Your task to perform on an android device: stop showing notifications on the lock screen Image 0: 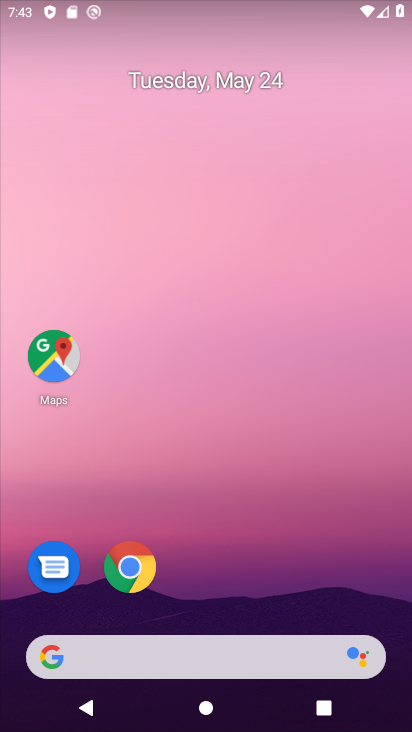
Step 0: click (88, 0)
Your task to perform on an android device: stop showing notifications on the lock screen Image 1: 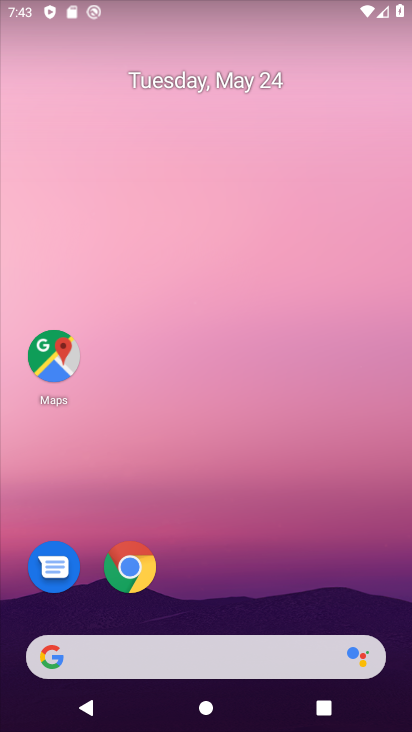
Step 1: click (106, 26)
Your task to perform on an android device: stop showing notifications on the lock screen Image 2: 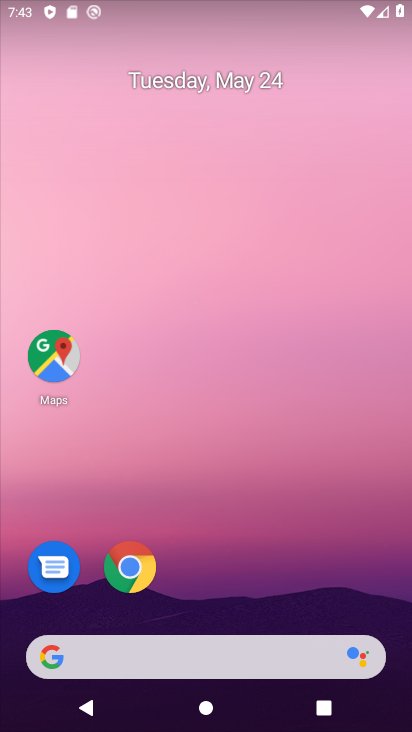
Step 2: click (175, 42)
Your task to perform on an android device: stop showing notifications on the lock screen Image 3: 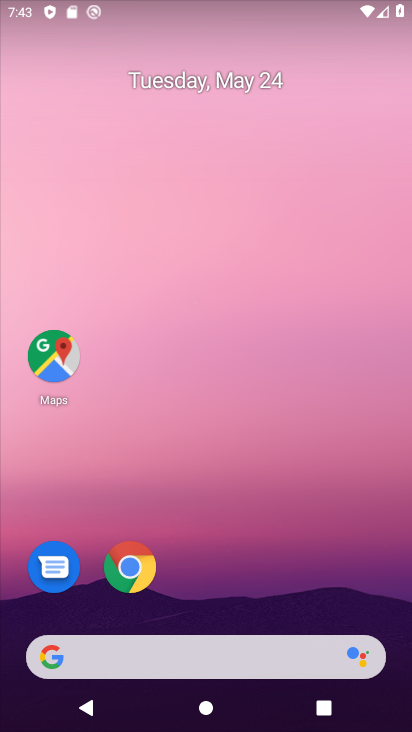
Step 3: click (198, 6)
Your task to perform on an android device: stop showing notifications on the lock screen Image 4: 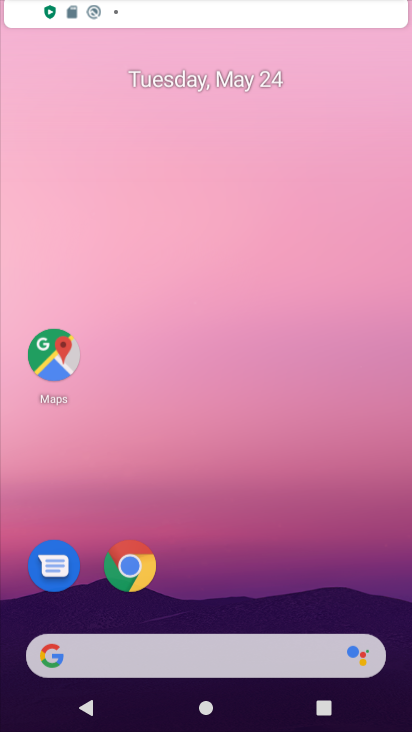
Step 4: click (190, 20)
Your task to perform on an android device: stop showing notifications on the lock screen Image 5: 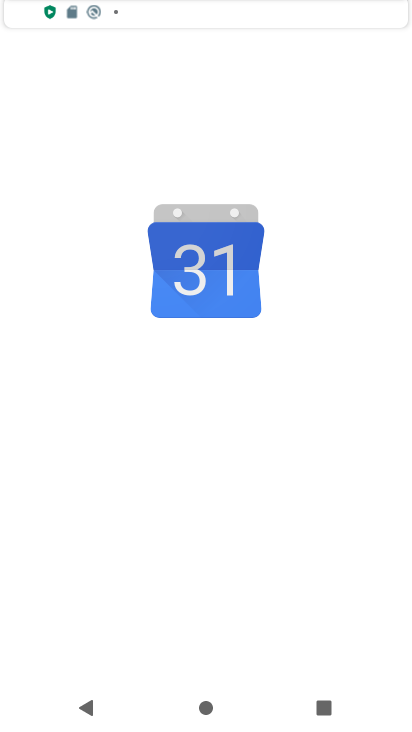
Step 5: click (267, 75)
Your task to perform on an android device: stop showing notifications on the lock screen Image 6: 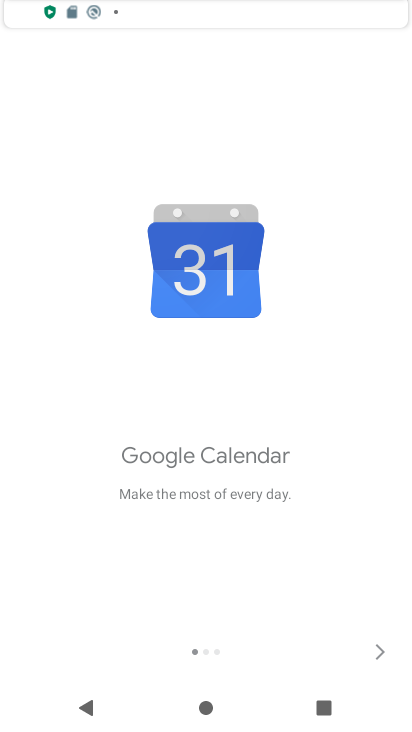
Step 6: click (288, 71)
Your task to perform on an android device: stop showing notifications on the lock screen Image 7: 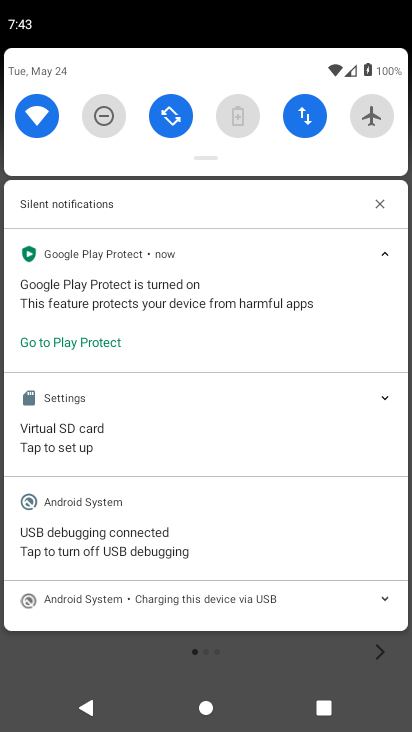
Step 7: press back button
Your task to perform on an android device: stop showing notifications on the lock screen Image 8: 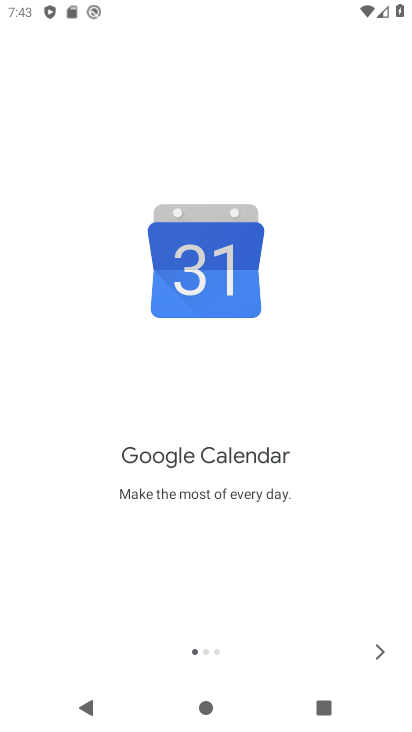
Step 8: click (385, 650)
Your task to perform on an android device: stop showing notifications on the lock screen Image 9: 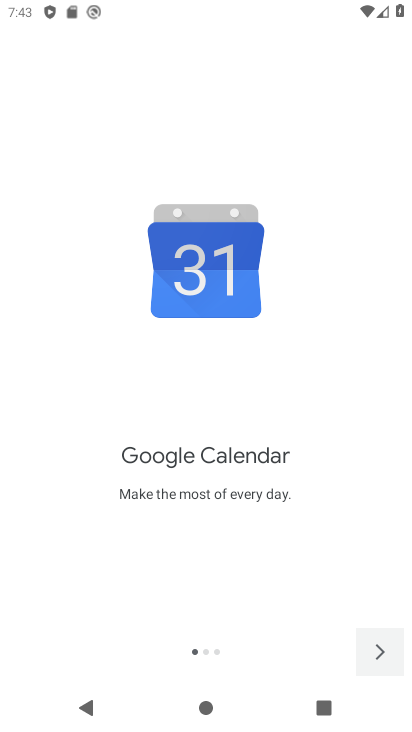
Step 9: click (386, 650)
Your task to perform on an android device: stop showing notifications on the lock screen Image 10: 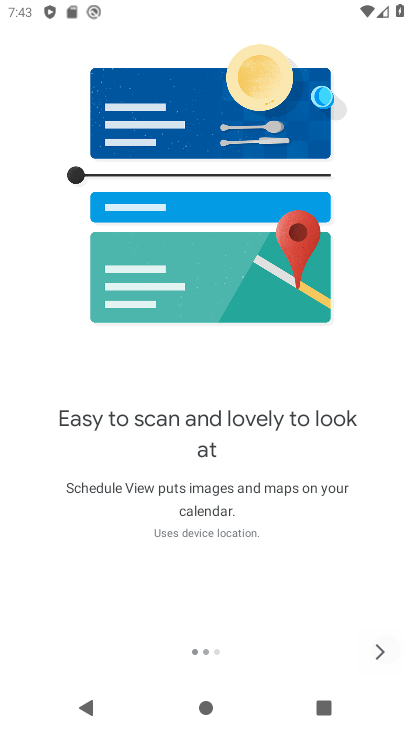
Step 10: click (386, 650)
Your task to perform on an android device: stop showing notifications on the lock screen Image 11: 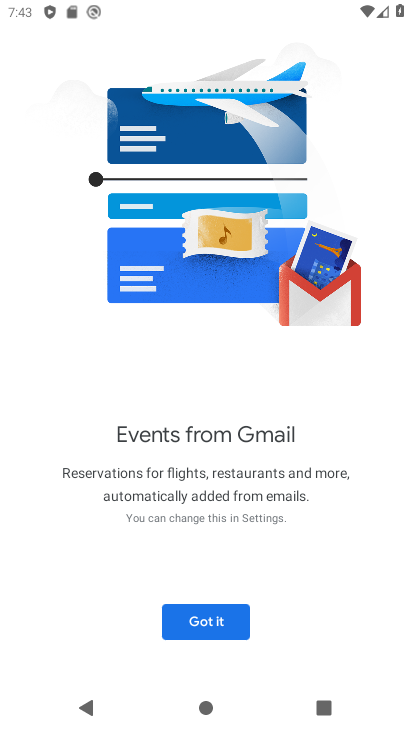
Step 11: press home button
Your task to perform on an android device: stop showing notifications on the lock screen Image 12: 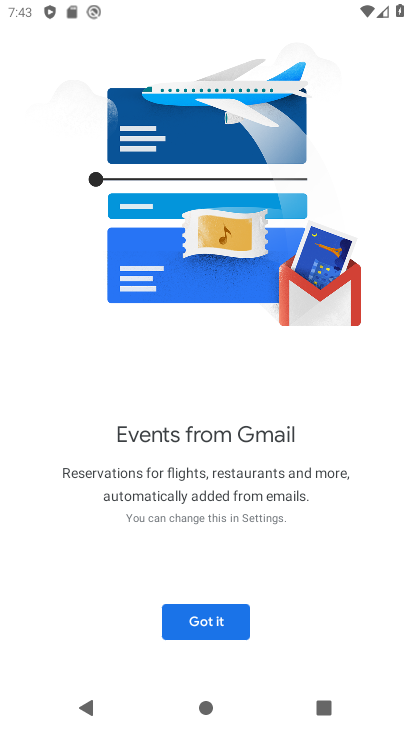
Step 12: press home button
Your task to perform on an android device: stop showing notifications on the lock screen Image 13: 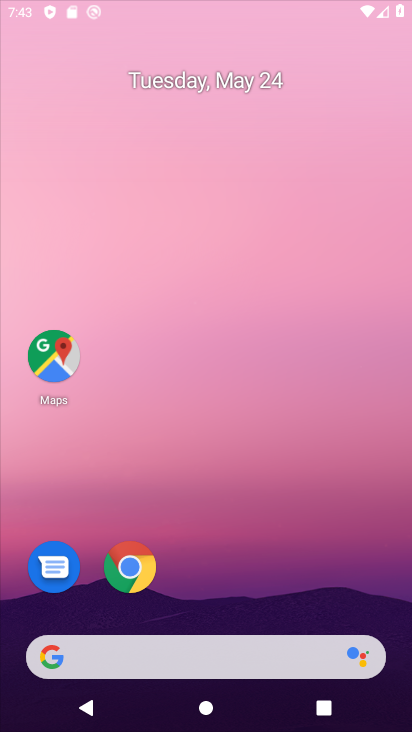
Step 13: press home button
Your task to perform on an android device: stop showing notifications on the lock screen Image 14: 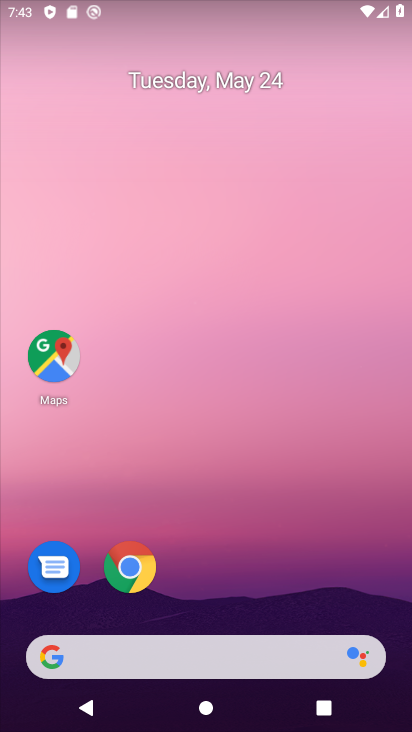
Step 14: press home button
Your task to perform on an android device: stop showing notifications on the lock screen Image 15: 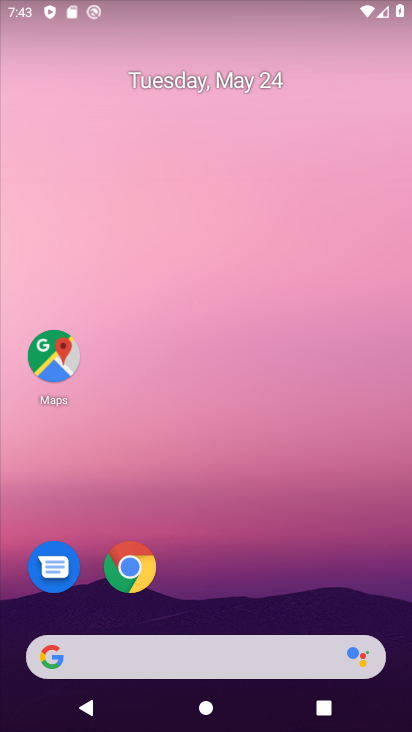
Step 15: press home button
Your task to perform on an android device: stop showing notifications on the lock screen Image 16: 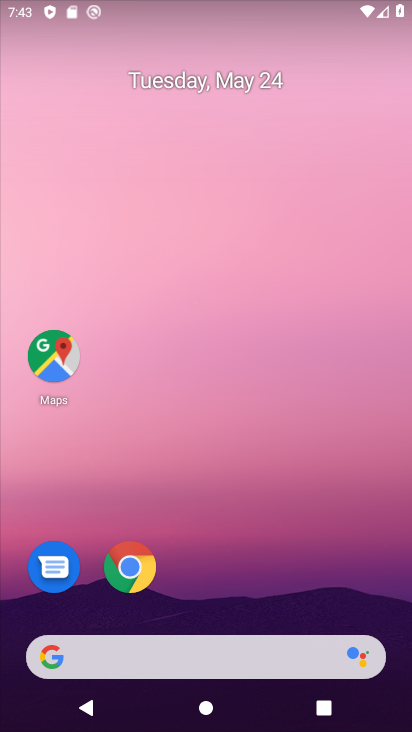
Step 16: drag from (220, 405) to (167, 57)
Your task to perform on an android device: stop showing notifications on the lock screen Image 17: 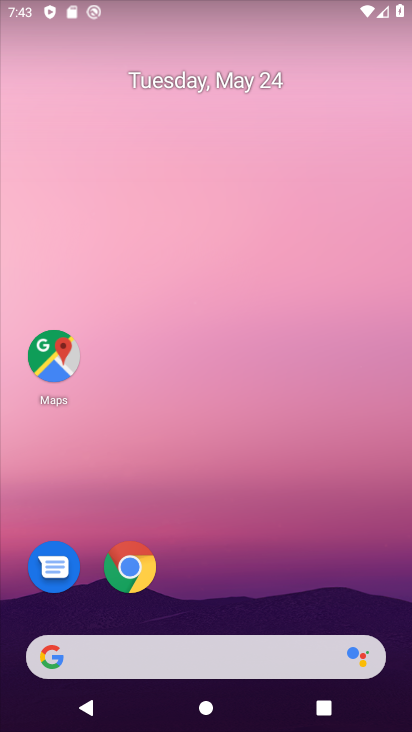
Step 17: drag from (244, 640) to (129, 96)
Your task to perform on an android device: stop showing notifications on the lock screen Image 18: 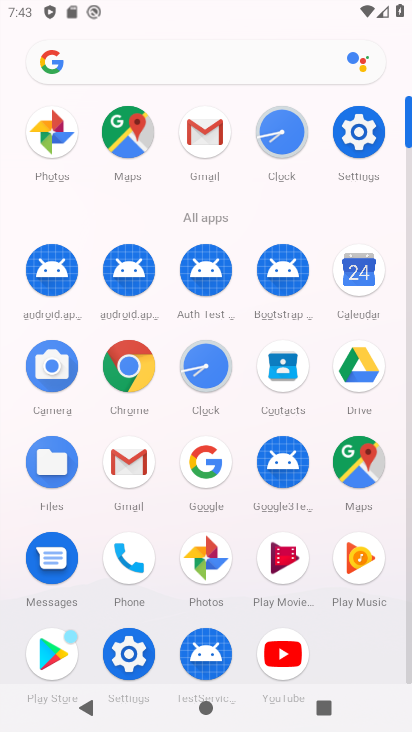
Step 18: drag from (232, 592) to (204, 168)
Your task to perform on an android device: stop showing notifications on the lock screen Image 19: 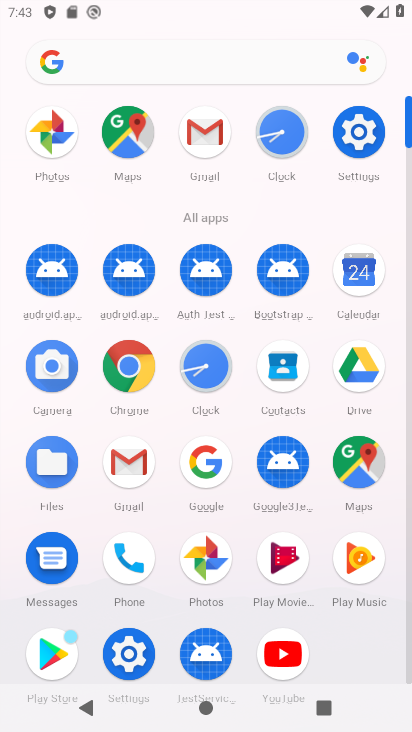
Step 19: click (359, 137)
Your task to perform on an android device: stop showing notifications on the lock screen Image 20: 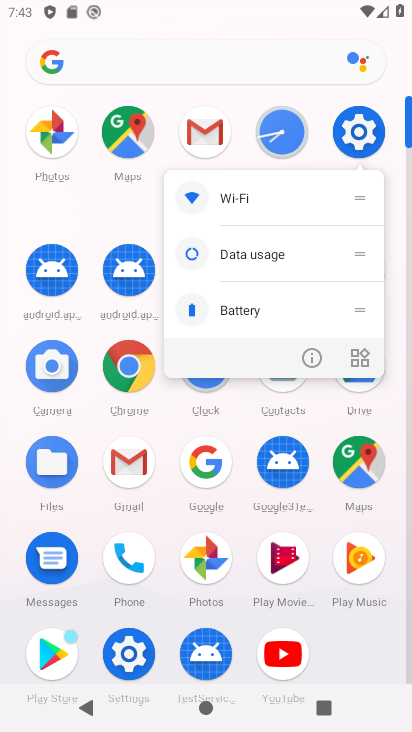
Step 20: click (359, 137)
Your task to perform on an android device: stop showing notifications on the lock screen Image 21: 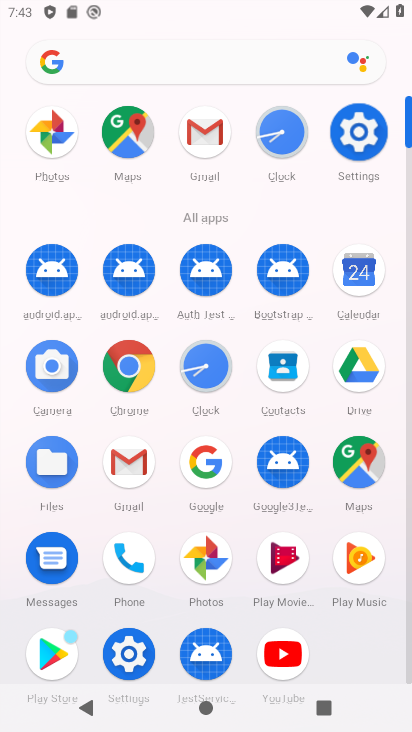
Step 21: click (359, 137)
Your task to perform on an android device: stop showing notifications on the lock screen Image 22: 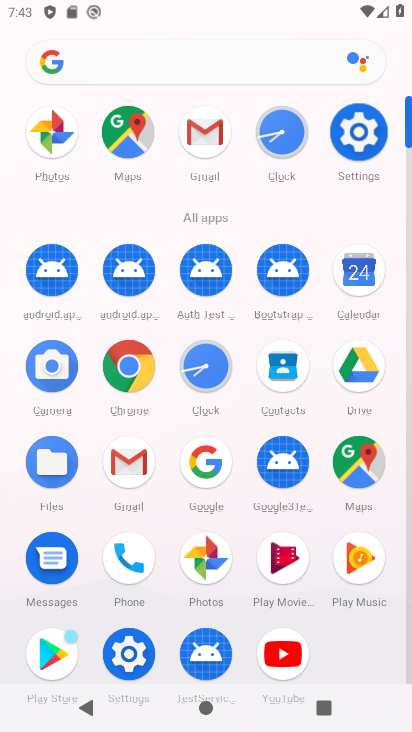
Step 22: click (359, 137)
Your task to perform on an android device: stop showing notifications on the lock screen Image 23: 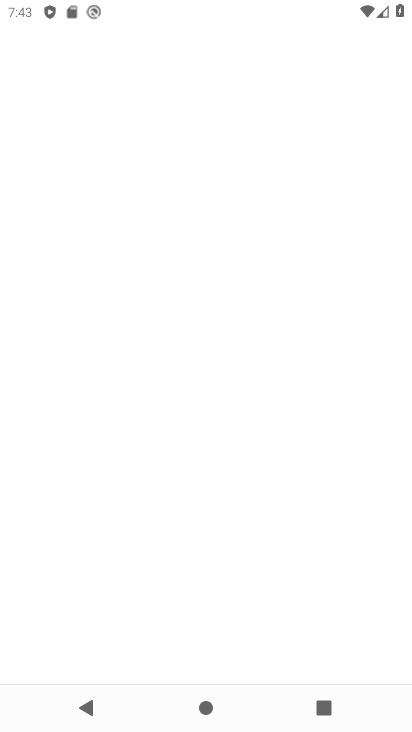
Step 23: click (359, 137)
Your task to perform on an android device: stop showing notifications on the lock screen Image 24: 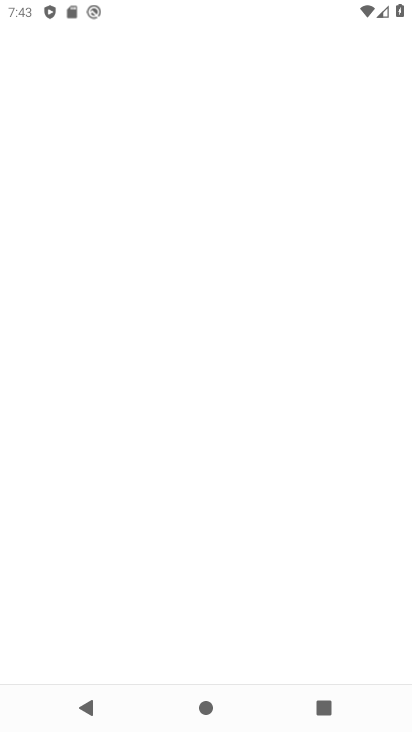
Step 24: click (359, 137)
Your task to perform on an android device: stop showing notifications on the lock screen Image 25: 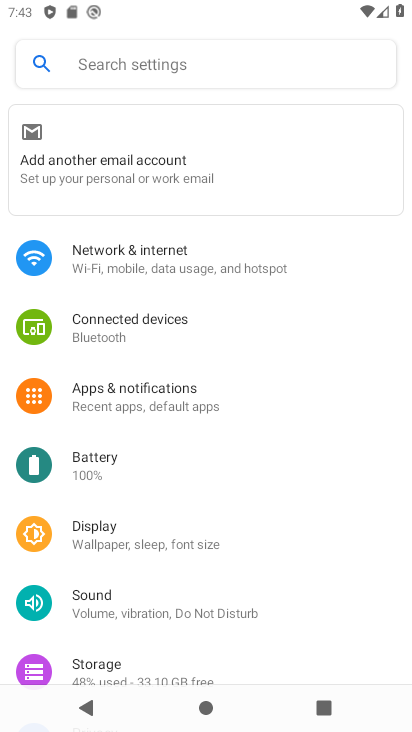
Step 25: click (132, 383)
Your task to perform on an android device: stop showing notifications on the lock screen Image 26: 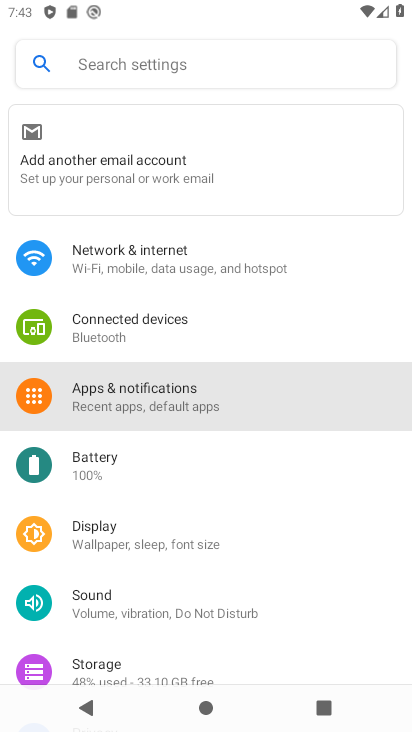
Step 26: click (135, 383)
Your task to perform on an android device: stop showing notifications on the lock screen Image 27: 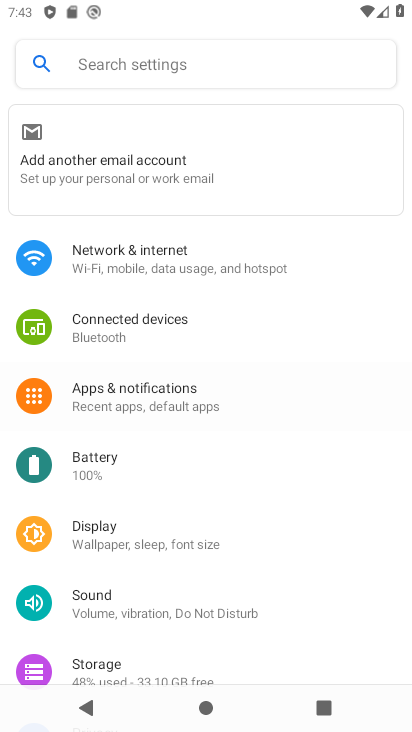
Step 27: click (146, 395)
Your task to perform on an android device: stop showing notifications on the lock screen Image 28: 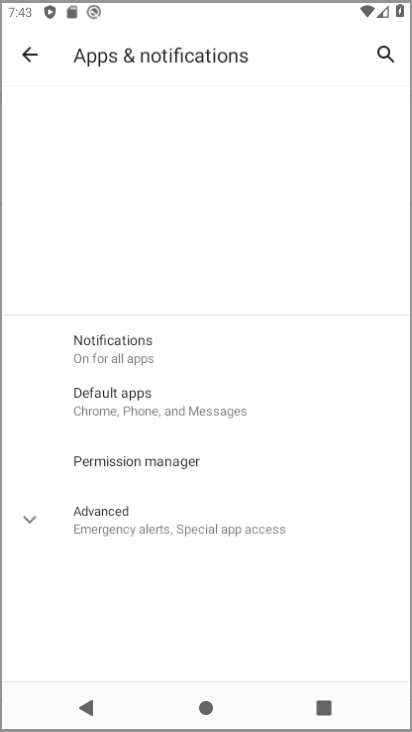
Step 28: click (148, 389)
Your task to perform on an android device: stop showing notifications on the lock screen Image 29: 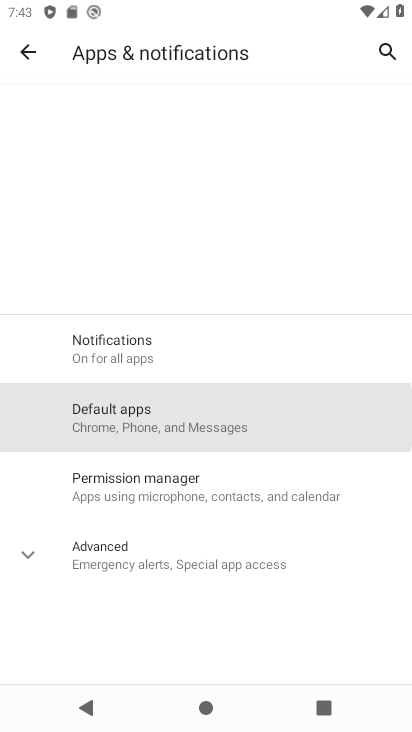
Step 29: click (149, 388)
Your task to perform on an android device: stop showing notifications on the lock screen Image 30: 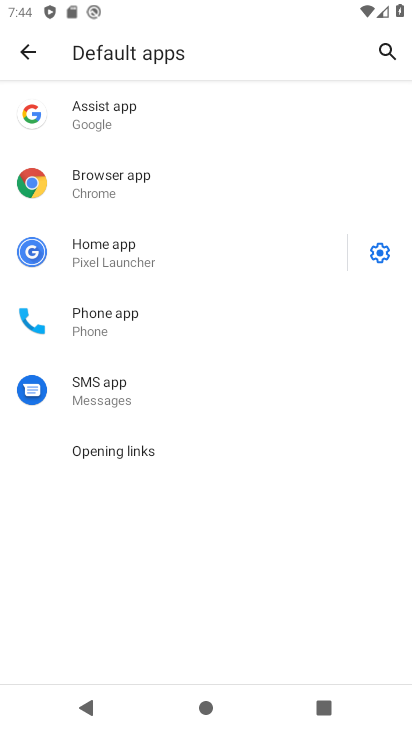
Step 30: click (93, 347)
Your task to perform on an android device: stop showing notifications on the lock screen Image 31: 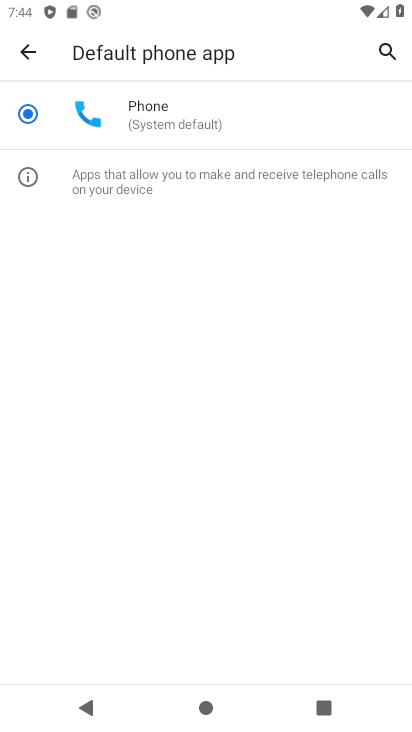
Step 31: click (27, 45)
Your task to perform on an android device: stop showing notifications on the lock screen Image 32: 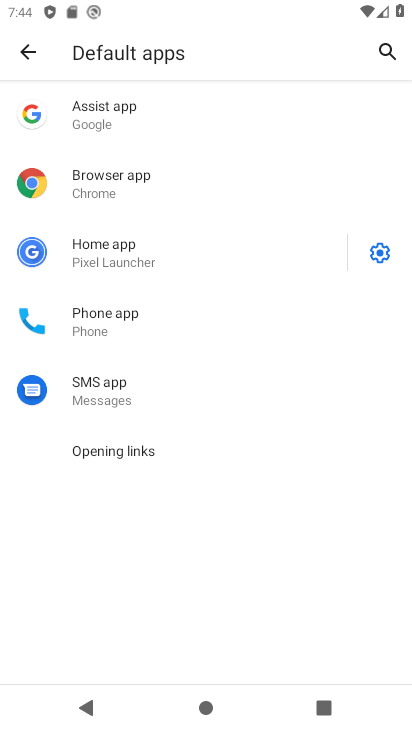
Step 32: click (33, 57)
Your task to perform on an android device: stop showing notifications on the lock screen Image 33: 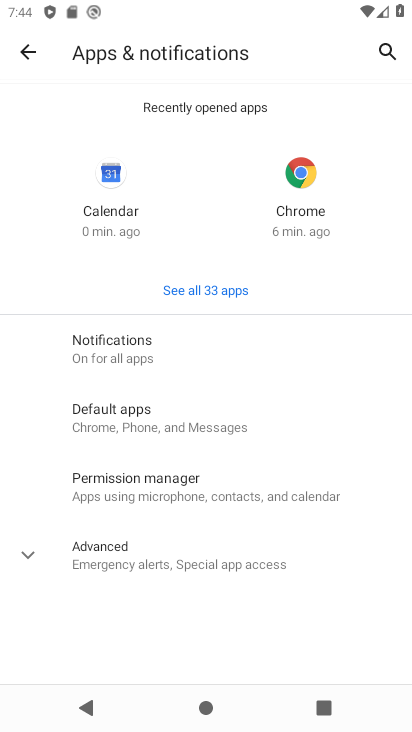
Step 33: click (98, 337)
Your task to perform on an android device: stop showing notifications on the lock screen Image 34: 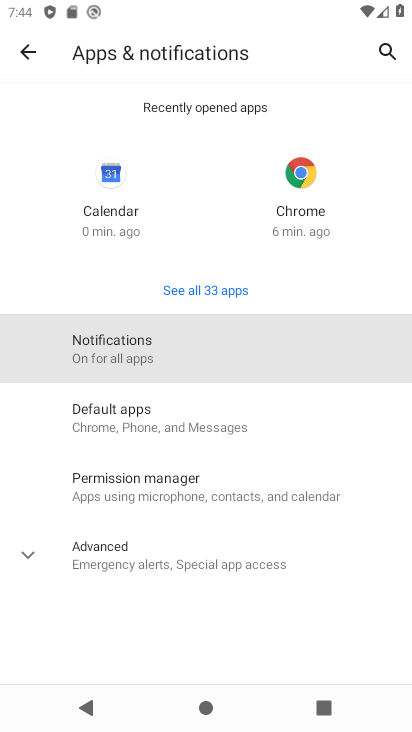
Step 34: click (98, 337)
Your task to perform on an android device: stop showing notifications on the lock screen Image 35: 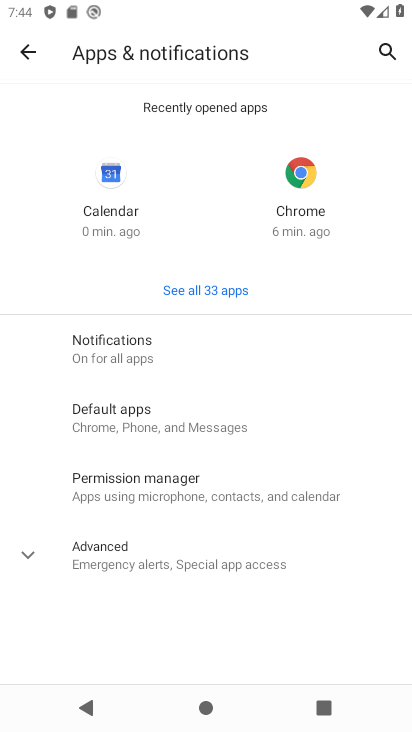
Step 35: click (105, 348)
Your task to perform on an android device: stop showing notifications on the lock screen Image 36: 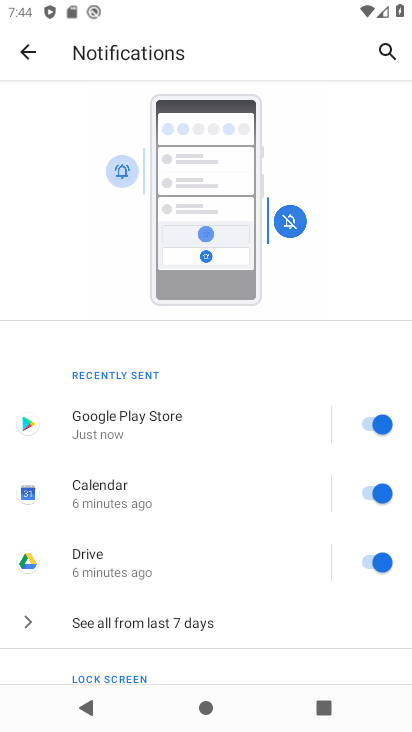
Step 36: task complete